Your task to perform on an android device: Go to settings Image 0: 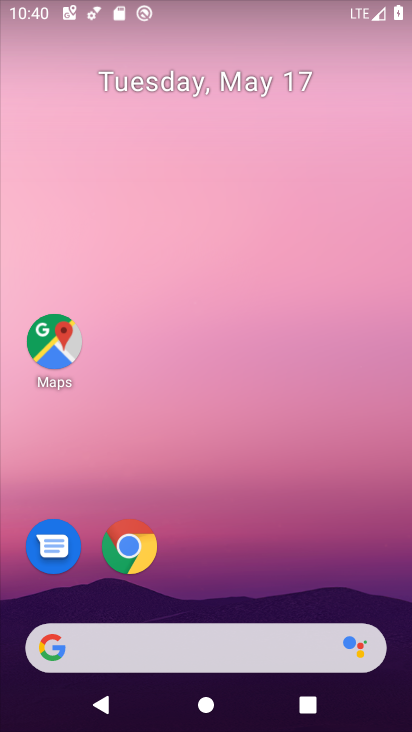
Step 0: drag from (200, 599) to (301, 180)
Your task to perform on an android device: Go to settings Image 1: 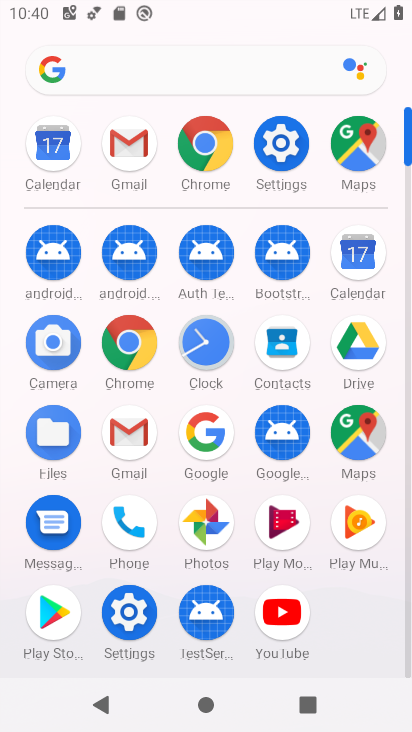
Step 1: click (137, 629)
Your task to perform on an android device: Go to settings Image 2: 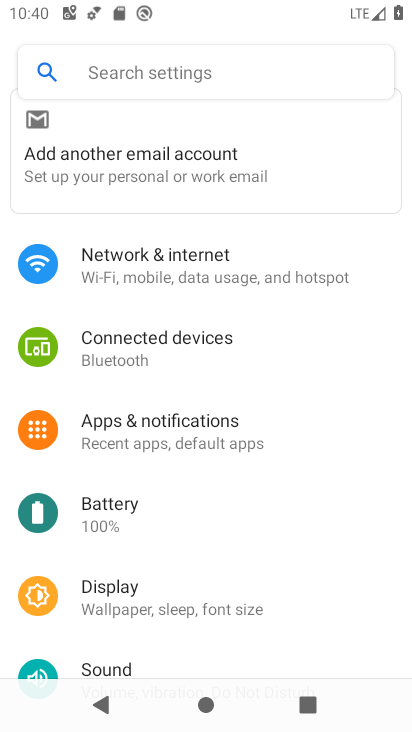
Step 2: task complete